Your task to perform on an android device: What's the weather today? Image 0: 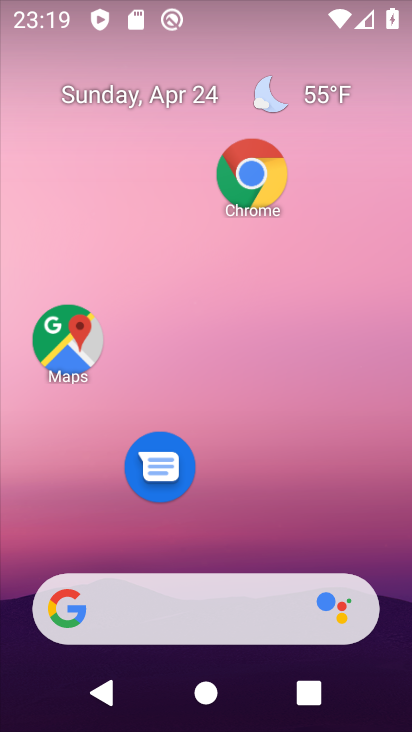
Step 0: drag from (259, 445) to (285, 122)
Your task to perform on an android device: What's the weather today? Image 1: 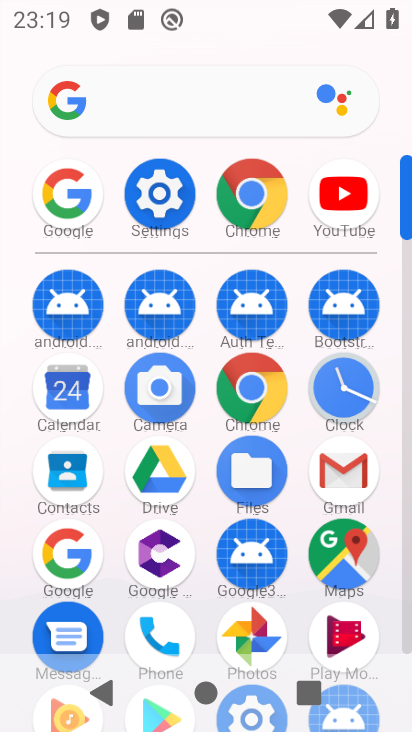
Step 1: click (67, 193)
Your task to perform on an android device: What's the weather today? Image 2: 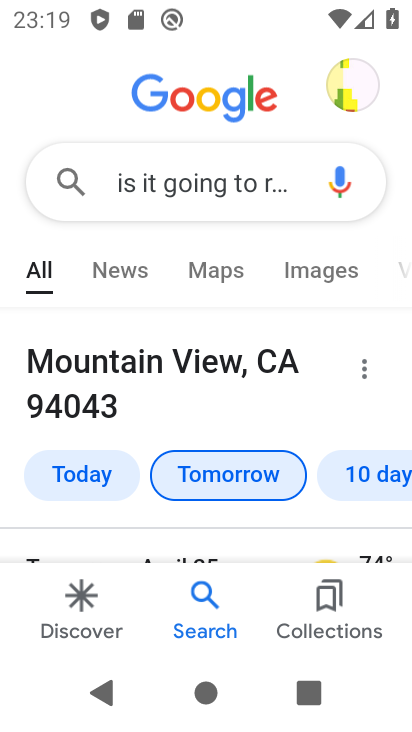
Step 2: click (297, 180)
Your task to perform on an android device: What's the weather today? Image 3: 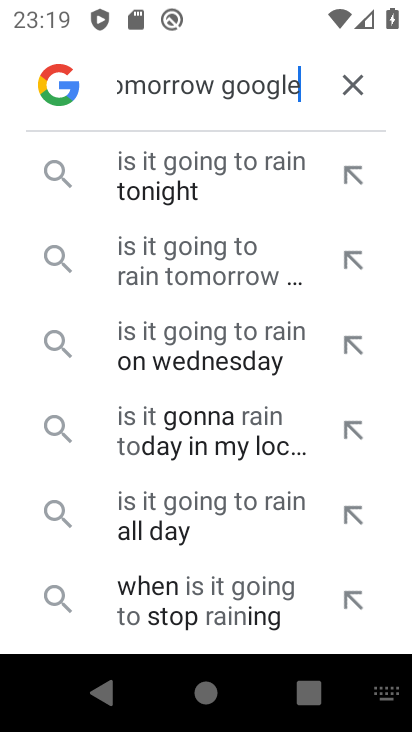
Step 3: click (360, 80)
Your task to perform on an android device: What's the weather today? Image 4: 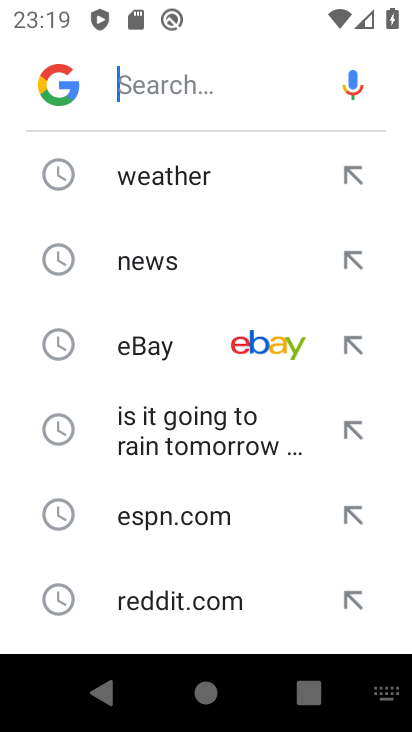
Step 4: type "weather day"
Your task to perform on an android device: What's the weather today? Image 5: 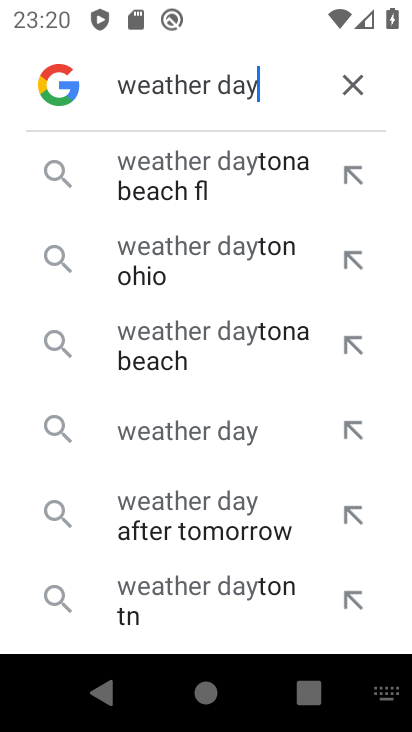
Step 5: click (205, 436)
Your task to perform on an android device: What's the weather today? Image 6: 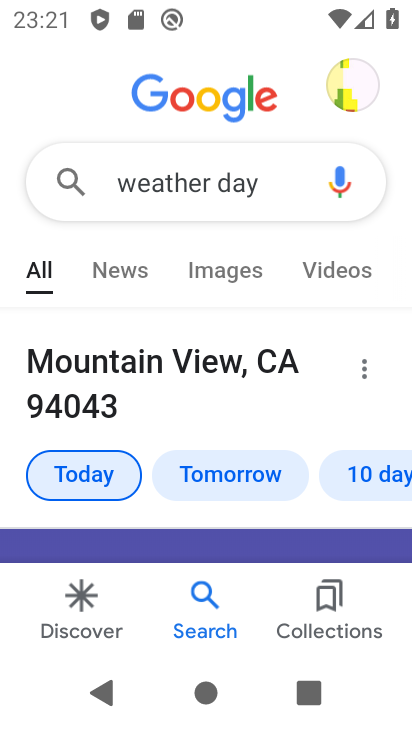
Step 6: task complete